Your task to perform on an android device: Install the Twitter app Image 0: 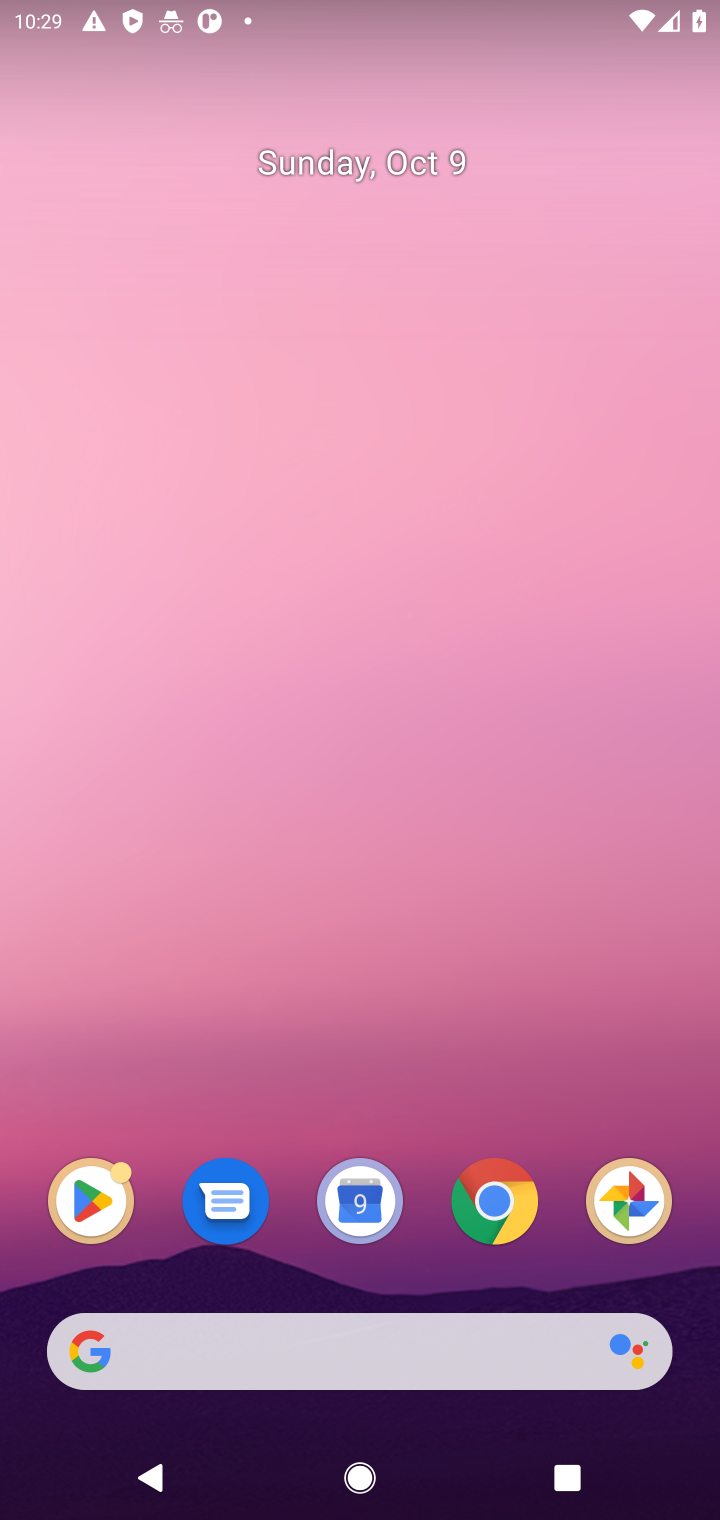
Step 0: click (80, 1196)
Your task to perform on an android device: Install the Twitter app Image 1: 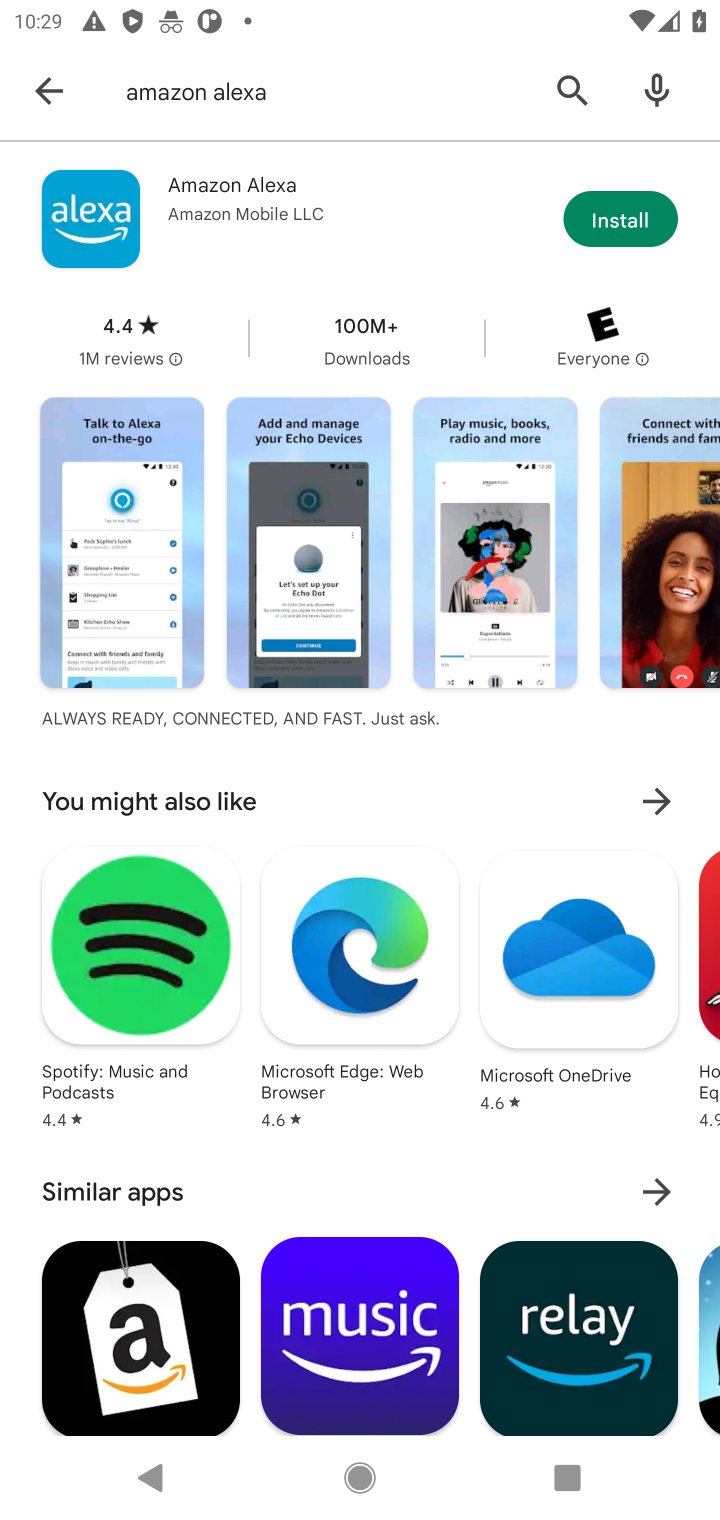
Step 1: click (225, 82)
Your task to perform on an android device: Install the Twitter app Image 2: 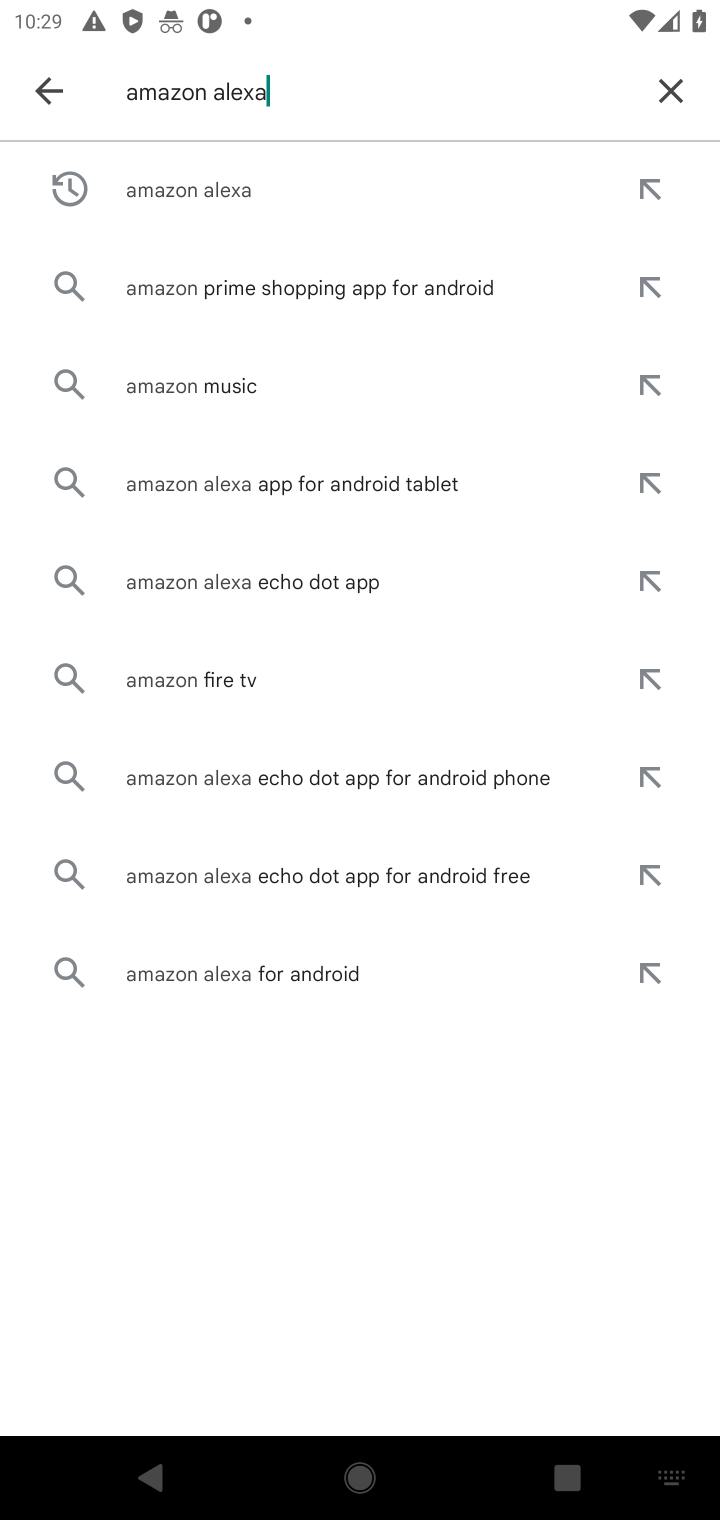
Step 2: click (662, 89)
Your task to perform on an android device: Install the Twitter app Image 3: 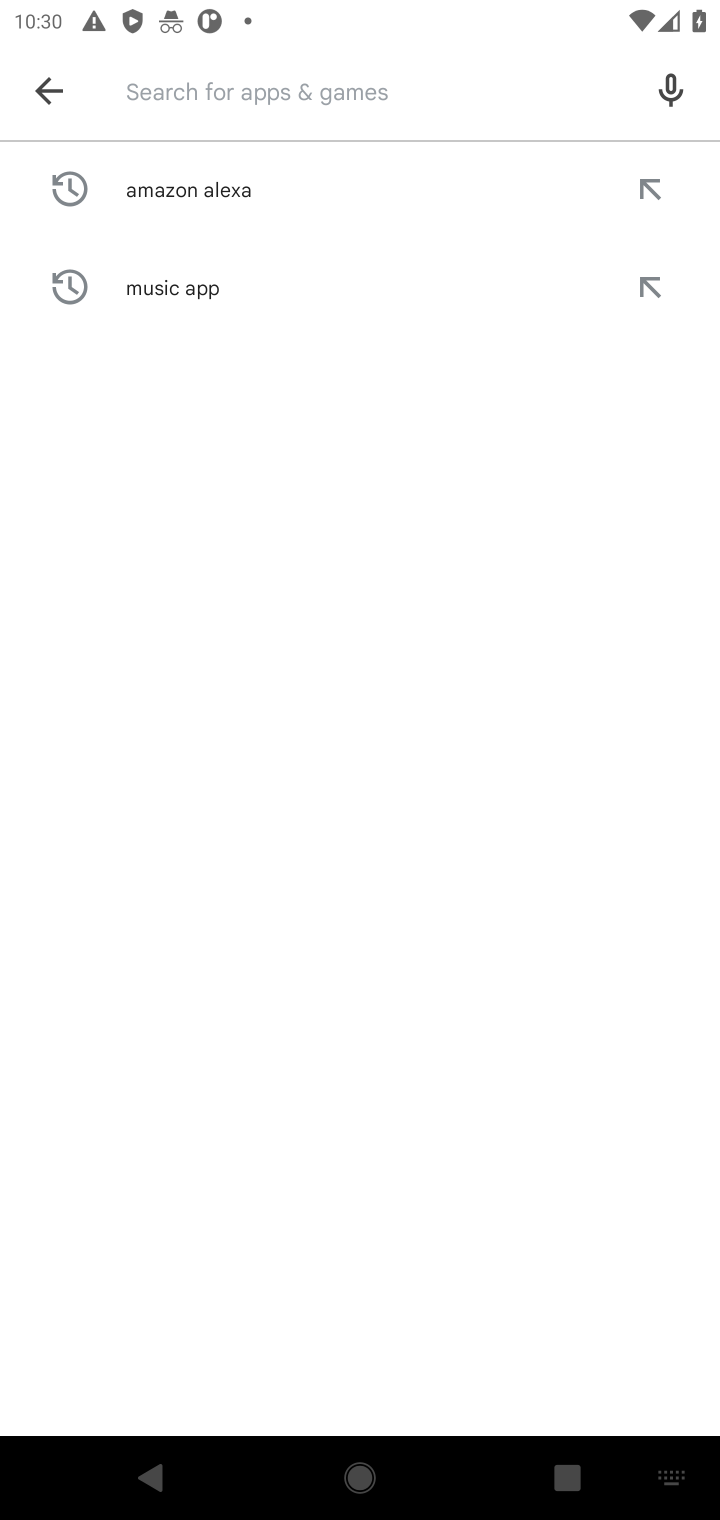
Step 3: type "twitter app"
Your task to perform on an android device: Install the Twitter app Image 4: 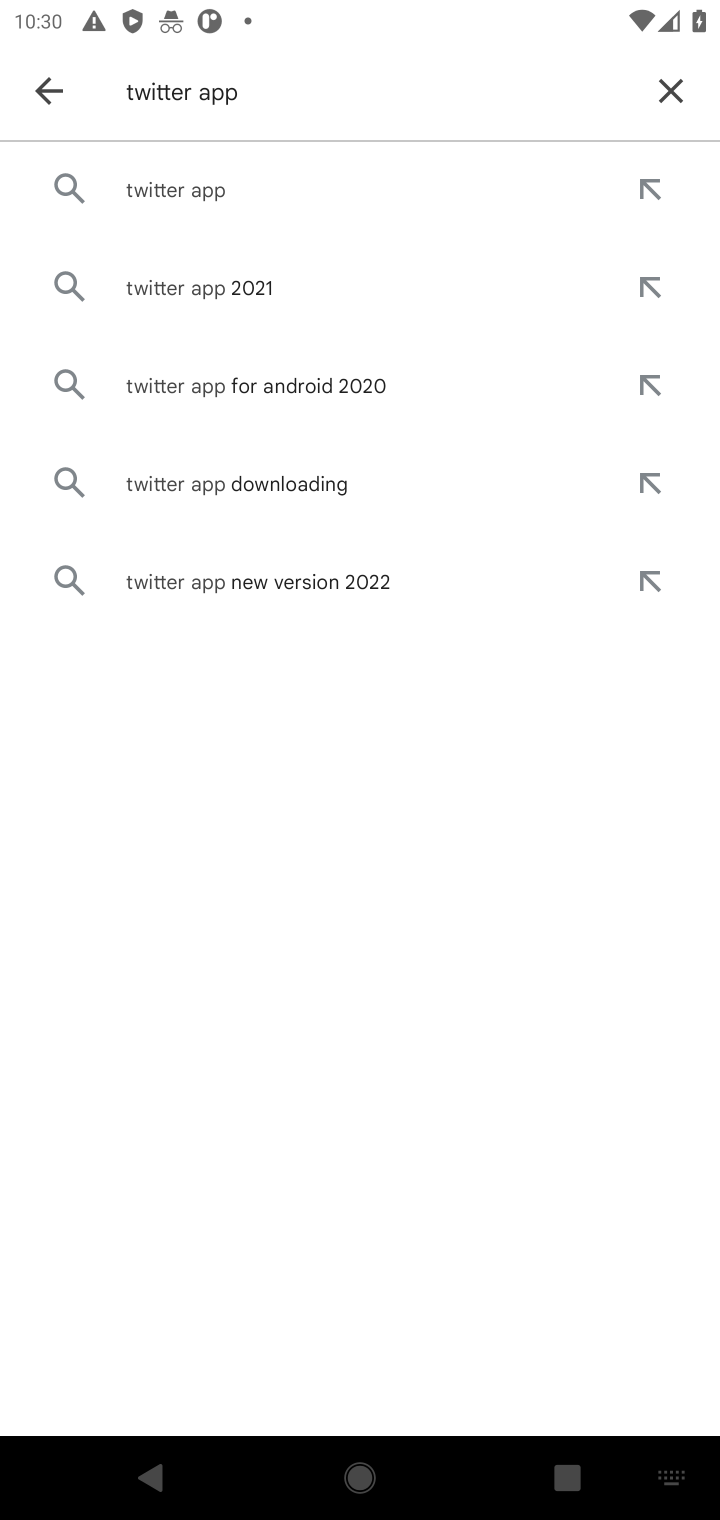
Step 4: click (198, 189)
Your task to perform on an android device: Install the Twitter app Image 5: 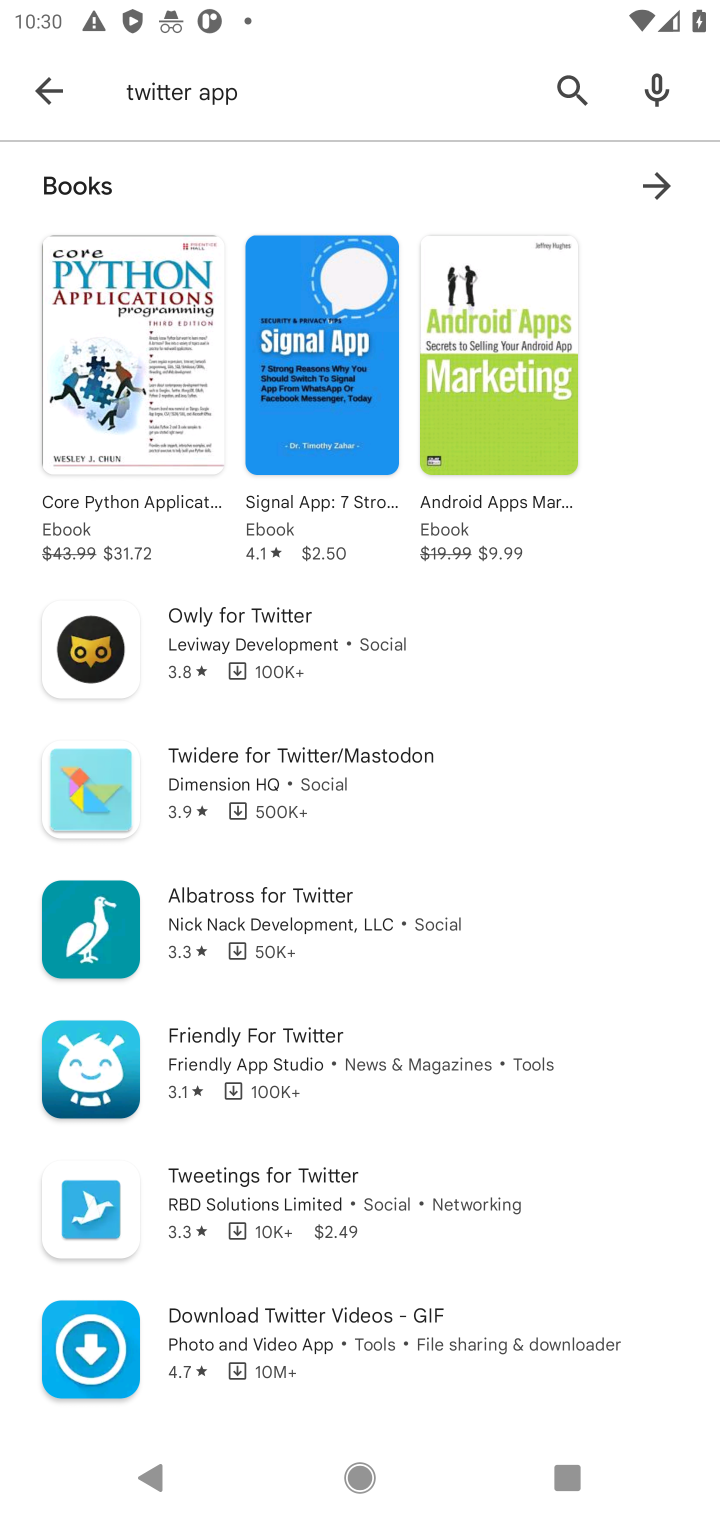
Step 5: click (528, 754)
Your task to perform on an android device: Install the Twitter app Image 6: 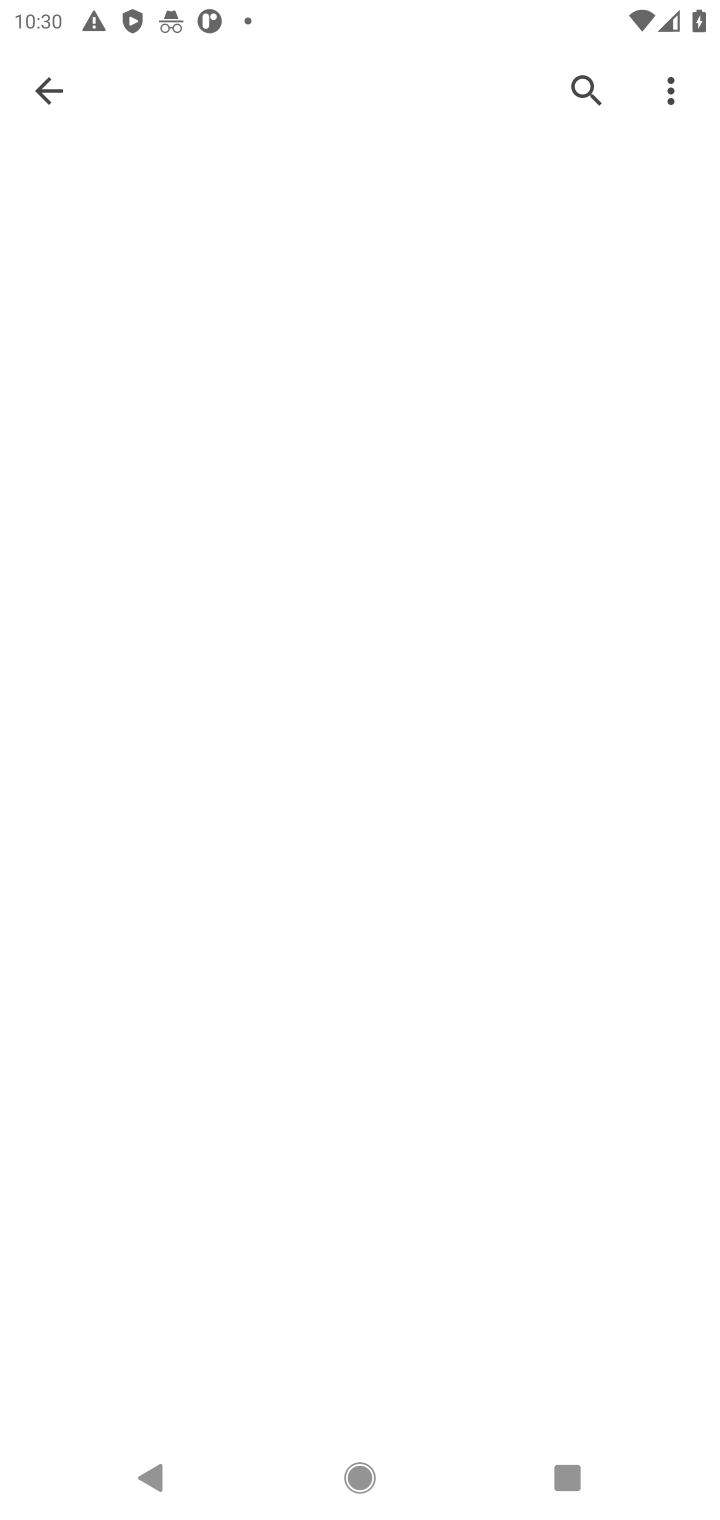
Step 6: task complete